Your task to perform on an android device: Open Maps and search for coffee Image 0: 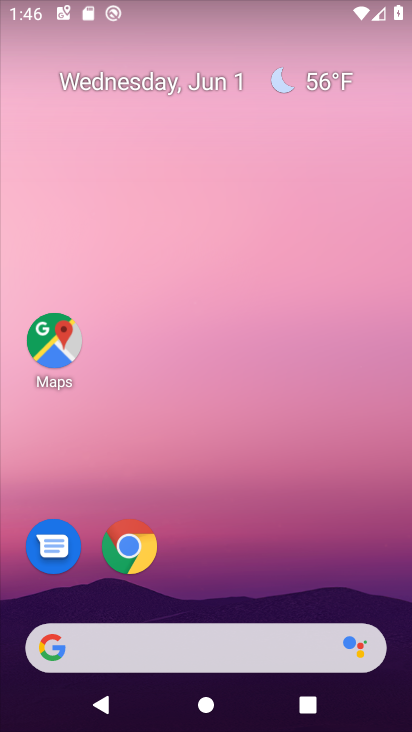
Step 0: click (57, 356)
Your task to perform on an android device: Open Maps and search for coffee Image 1: 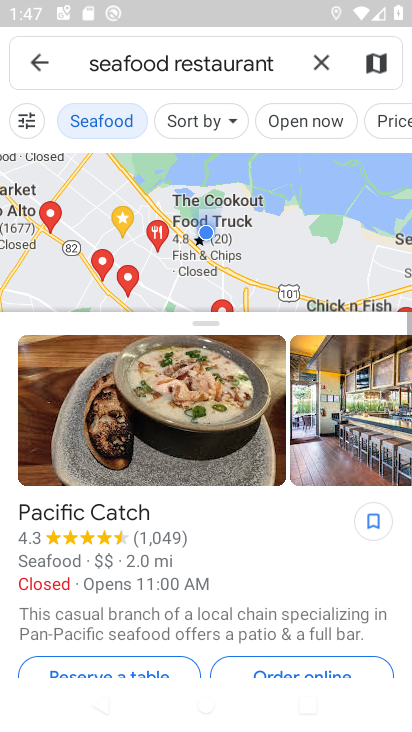
Step 1: click (313, 69)
Your task to perform on an android device: Open Maps and search for coffee Image 2: 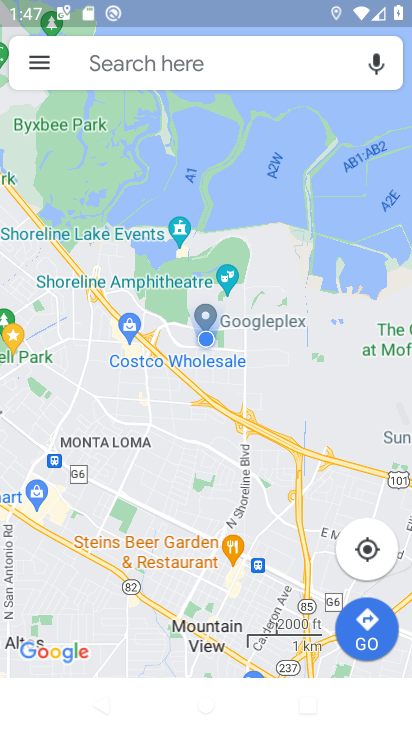
Step 2: click (240, 68)
Your task to perform on an android device: Open Maps and search for coffee Image 3: 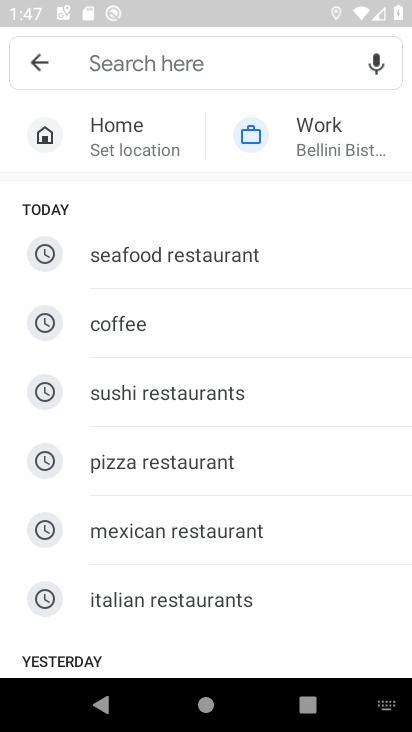
Step 3: click (170, 336)
Your task to perform on an android device: Open Maps and search for coffee Image 4: 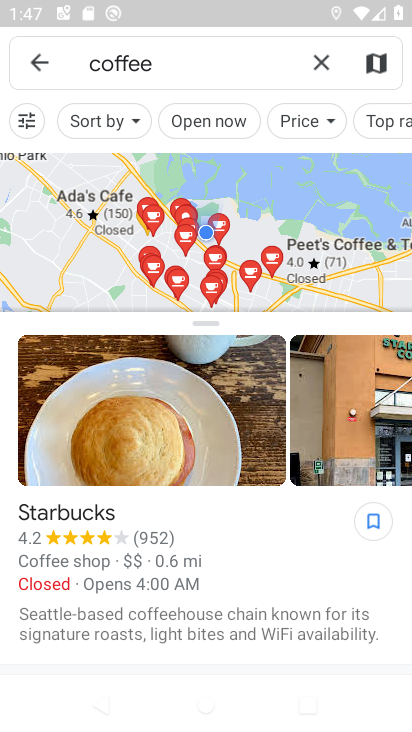
Step 4: task complete